Your task to perform on an android device: Open calendar and show me the first week of next month Image 0: 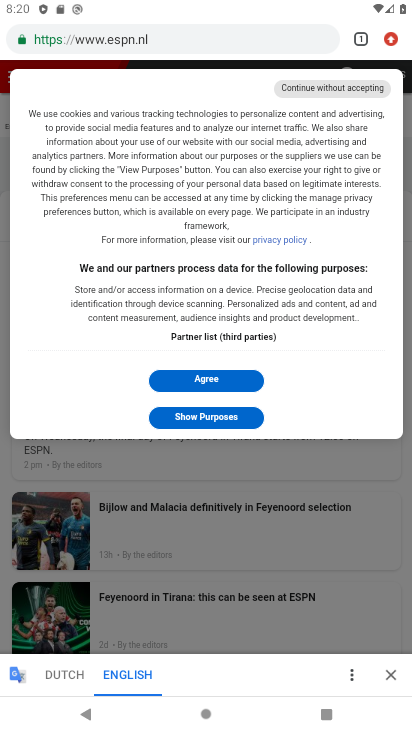
Step 0: press home button
Your task to perform on an android device: Open calendar and show me the first week of next month Image 1: 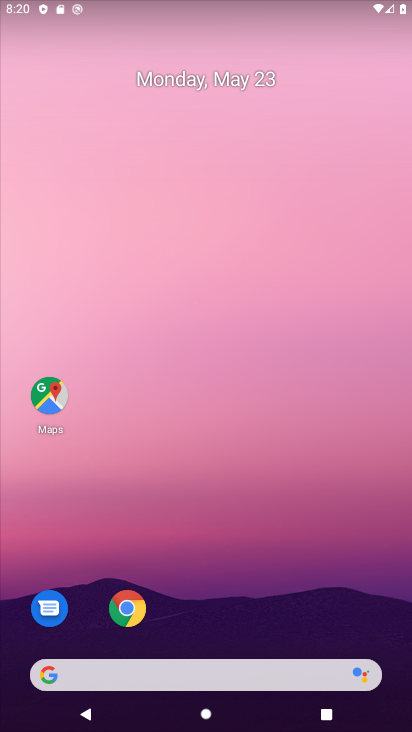
Step 1: drag from (233, 712) to (209, 42)
Your task to perform on an android device: Open calendar and show me the first week of next month Image 2: 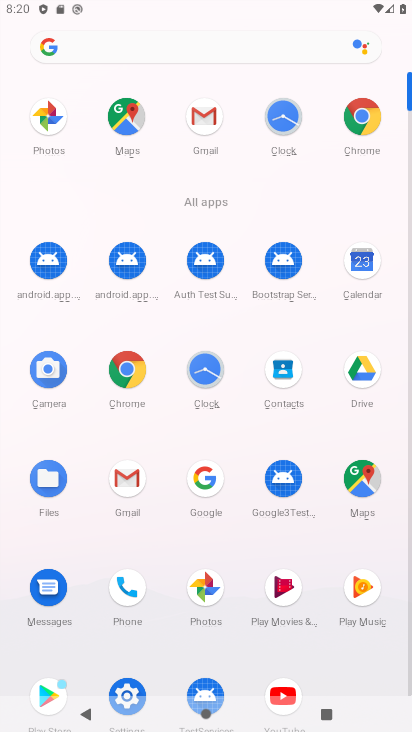
Step 2: click (362, 265)
Your task to perform on an android device: Open calendar and show me the first week of next month Image 3: 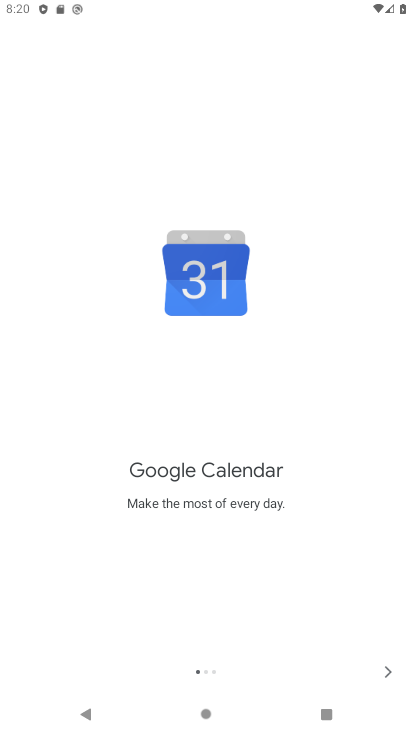
Step 3: click (389, 668)
Your task to perform on an android device: Open calendar and show me the first week of next month Image 4: 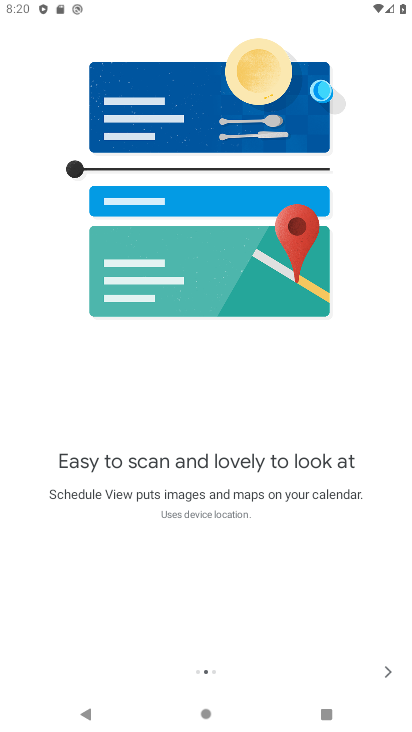
Step 4: click (390, 672)
Your task to perform on an android device: Open calendar and show me the first week of next month Image 5: 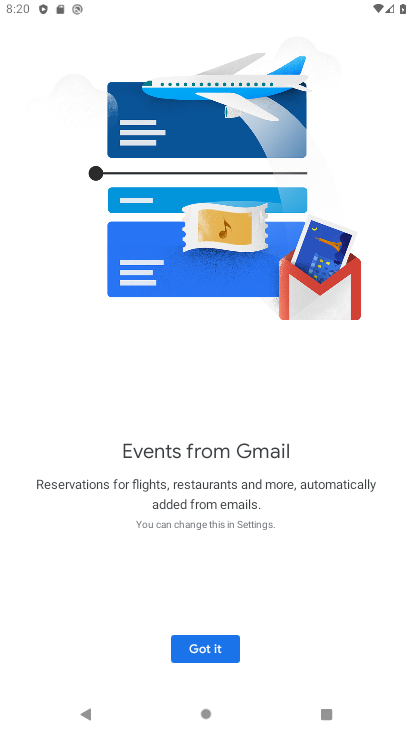
Step 5: click (206, 647)
Your task to perform on an android device: Open calendar and show me the first week of next month Image 6: 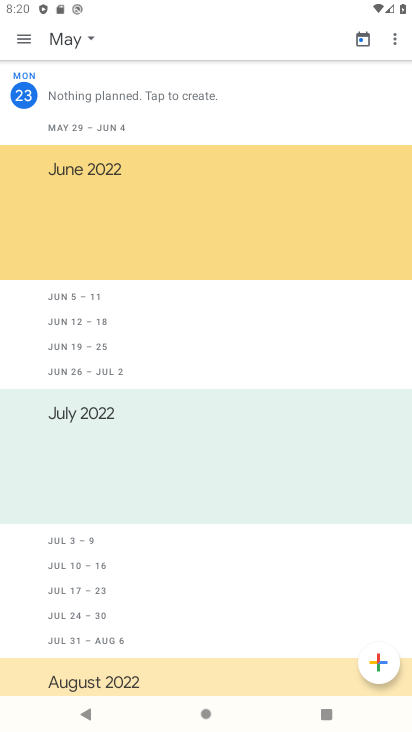
Step 6: click (90, 34)
Your task to perform on an android device: Open calendar and show me the first week of next month Image 7: 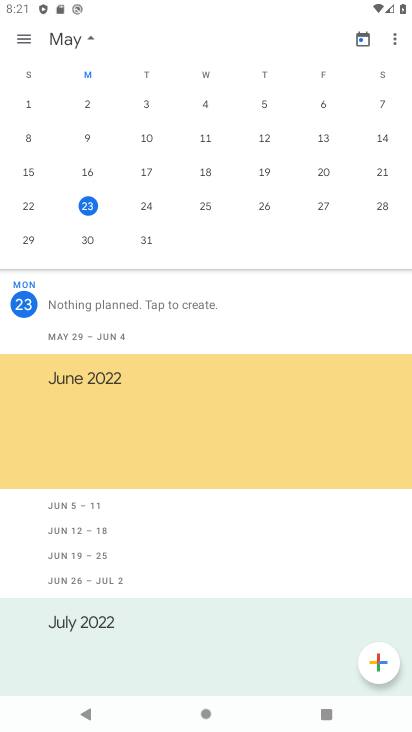
Step 7: drag from (314, 164) to (10, 164)
Your task to perform on an android device: Open calendar and show me the first week of next month Image 8: 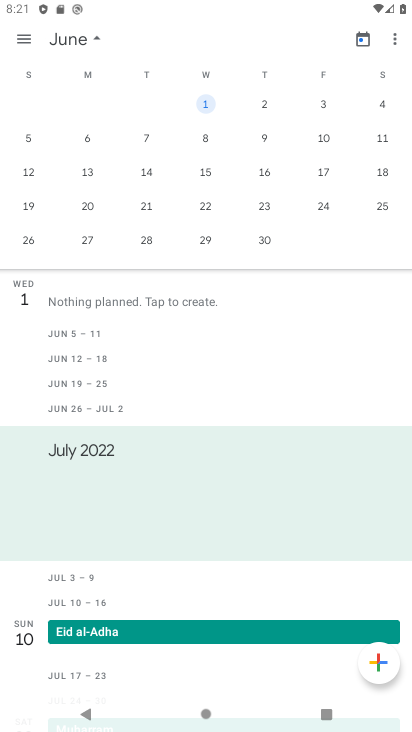
Step 8: click (90, 136)
Your task to perform on an android device: Open calendar and show me the first week of next month Image 9: 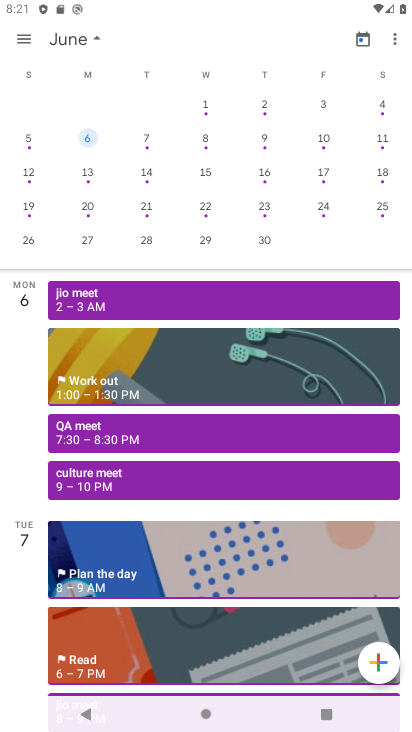
Step 9: task complete